Your task to perform on an android device: move a message to another label in the gmail app Image 0: 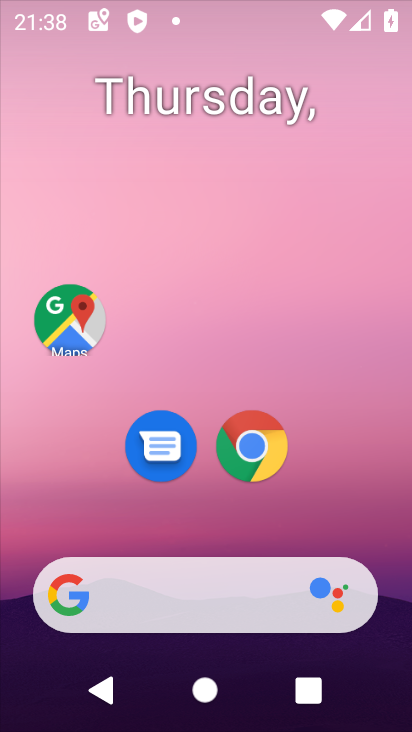
Step 0: press home button
Your task to perform on an android device: move a message to another label in the gmail app Image 1: 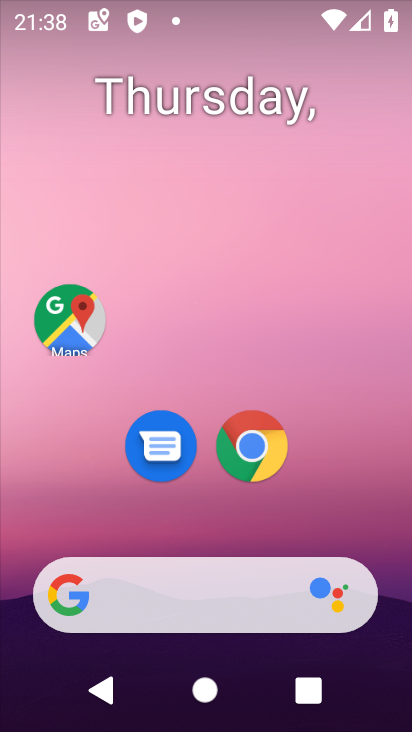
Step 1: drag from (397, 704) to (304, 123)
Your task to perform on an android device: move a message to another label in the gmail app Image 2: 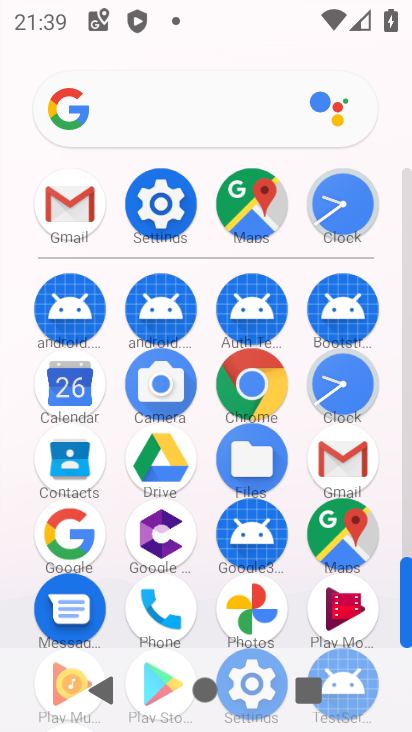
Step 2: click (326, 448)
Your task to perform on an android device: move a message to another label in the gmail app Image 3: 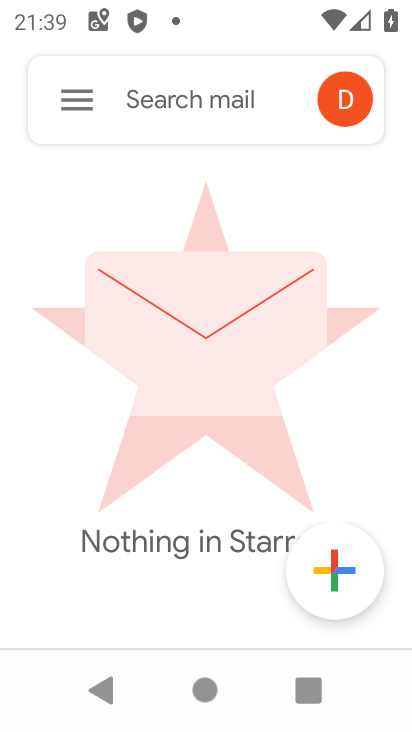
Step 3: click (73, 107)
Your task to perform on an android device: move a message to another label in the gmail app Image 4: 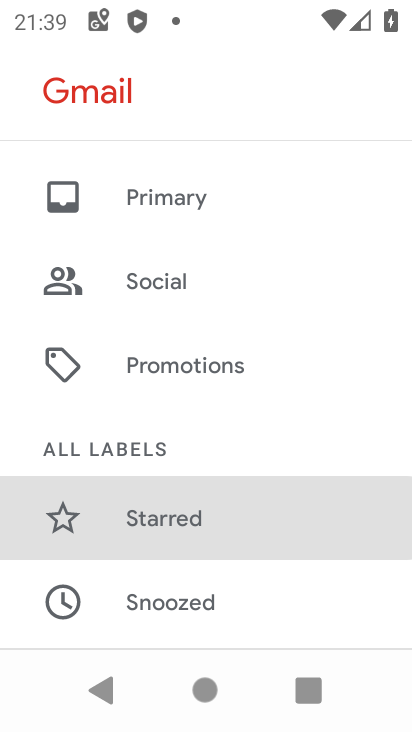
Step 4: task complete